Your task to perform on an android device: remove spam from my inbox in the gmail app Image 0: 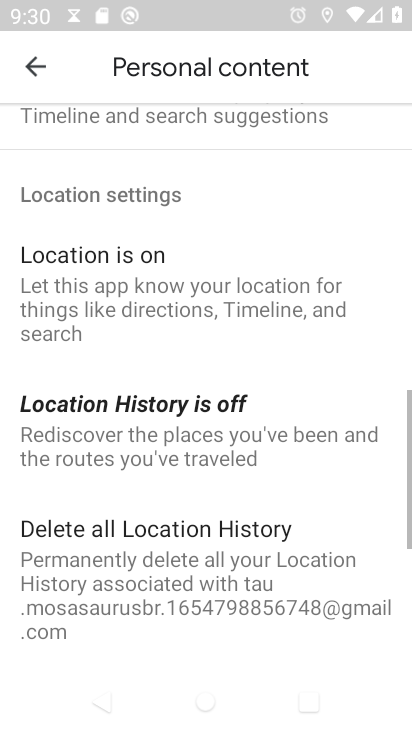
Step 0: click (252, 537)
Your task to perform on an android device: remove spam from my inbox in the gmail app Image 1: 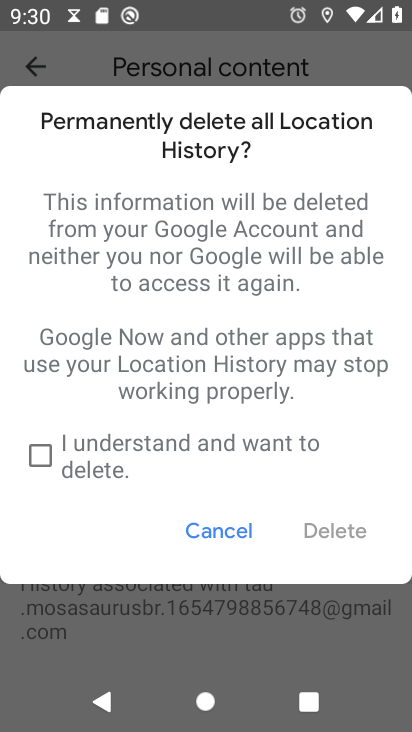
Step 1: press home button
Your task to perform on an android device: remove spam from my inbox in the gmail app Image 2: 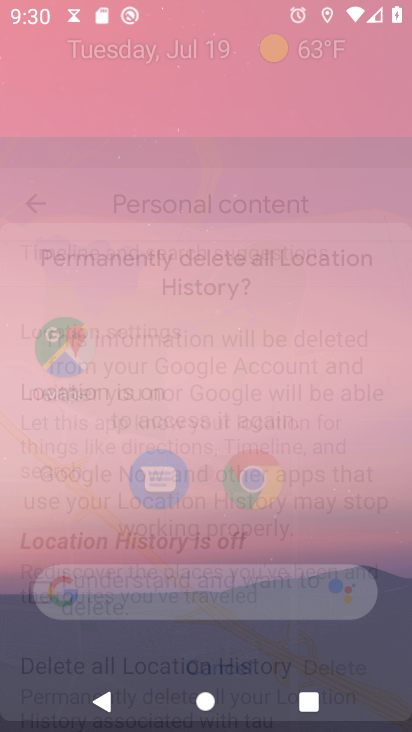
Step 2: press home button
Your task to perform on an android device: remove spam from my inbox in the gmail app Image 3: 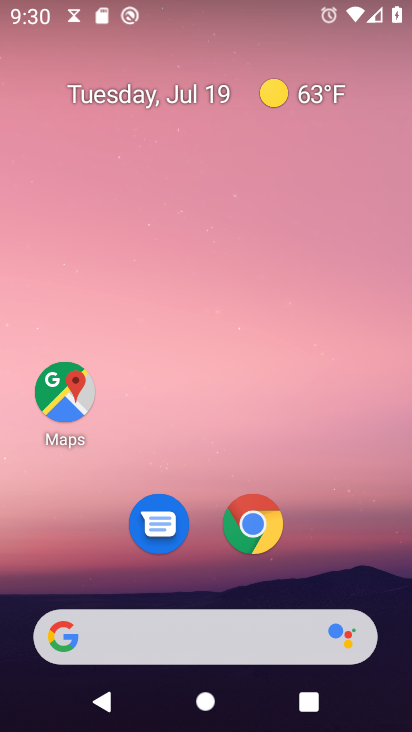
Step 3: drag from (164, 640) to (265, 228)
Your task to perform on an android device: remove spam from my inbox in the gmail app Image 4: 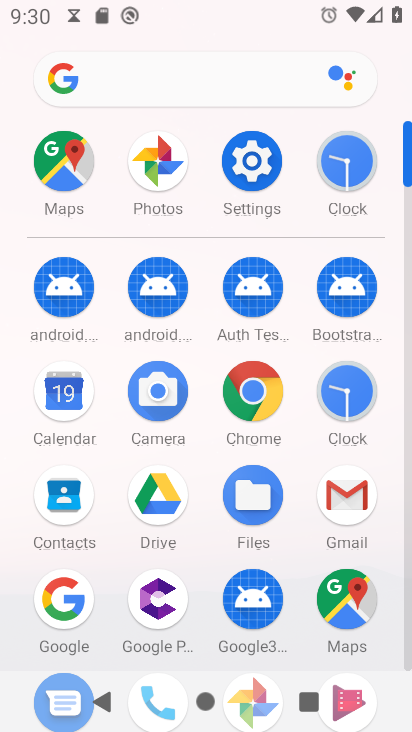
Step 4: click (349, 499)
Your task to perform on an android device: remove spam from my inbox in the gmail app Image 5: 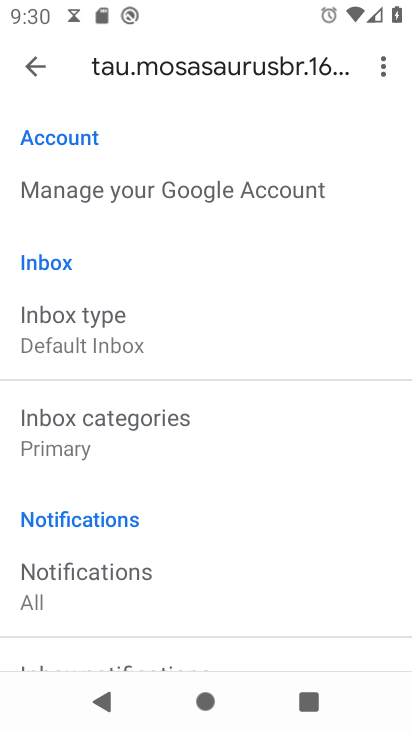
Step 5: click (37, 63)
Your task to perform on an android device: remove spam from my inbox in the gmail app Image 6: 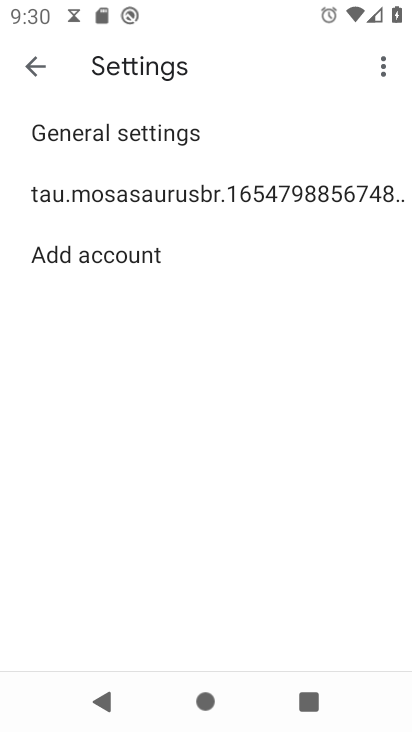
Step 6: click (38, 68)
Your task to perform on an android device: remove spam from my inbox in the gmail app Image 7: 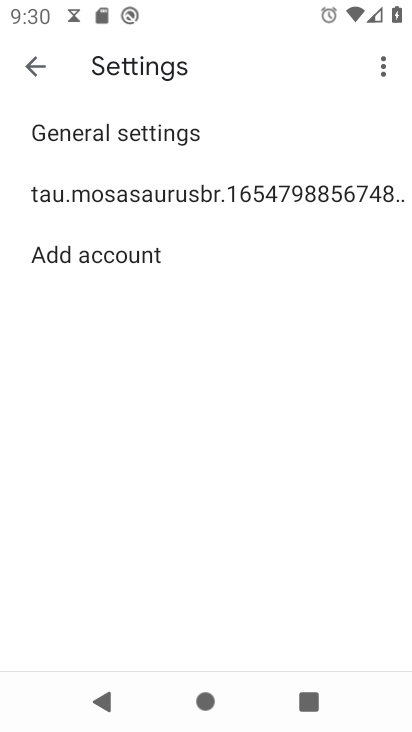
Step 7: click (24, 71)
Your task to perform on an android device: remove spam from my inbox in the gmail app Image 8: 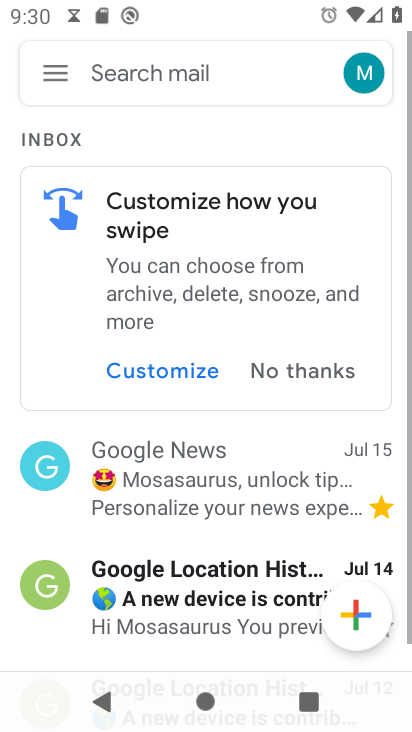
Step 8: click (47, 80)
Your task to perform on an android device: remove spam from my inbox in the gmail app Image 9: 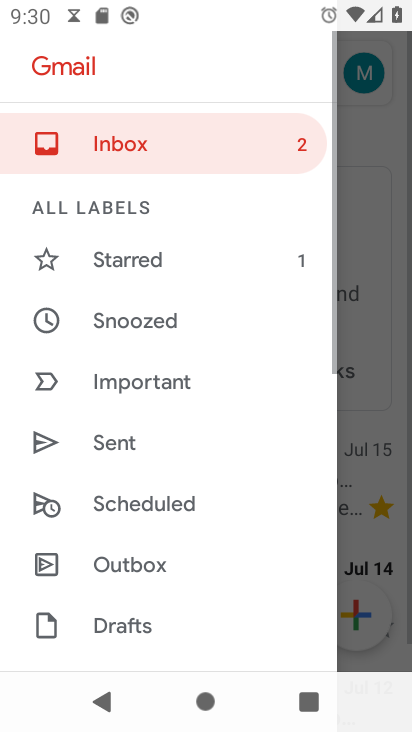
Step 9: drag from (199, 600) to (256, 213)
Your task to perform on an android device: remove spam from my inbox in the gmail app Image 10: 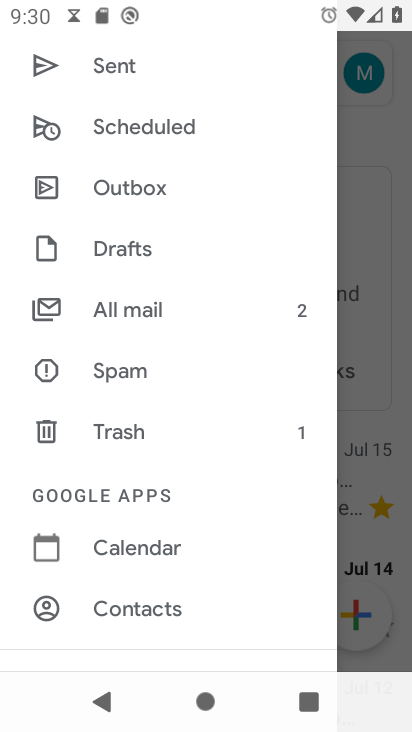
Step 10: click (140, 381)
Your task to perform on an android device: remove spam from my inbox in the gmail app Image 11: 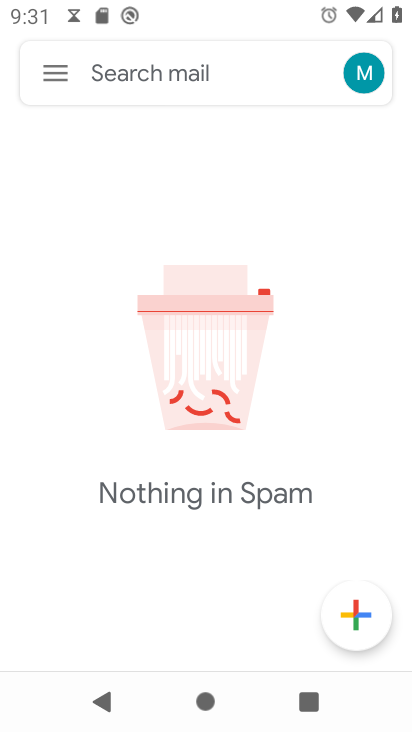
Step 11: task complete